Your task to perform on an android device: Open Android settings Image 0: 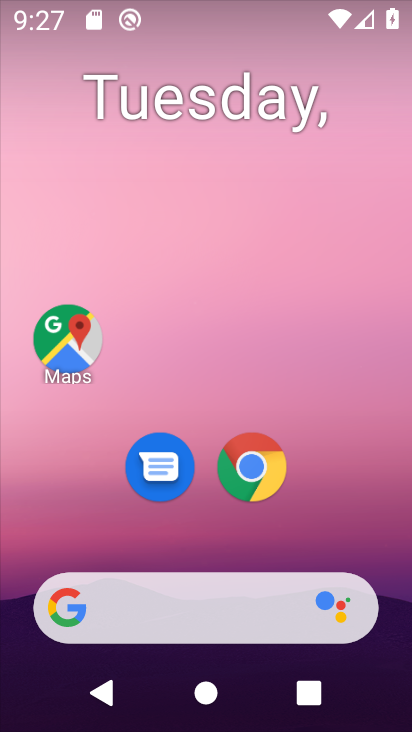
Step 0: drag from (351, 495) to (351, 168)
Your task to perform on an android device: Open Android settings Image 1: 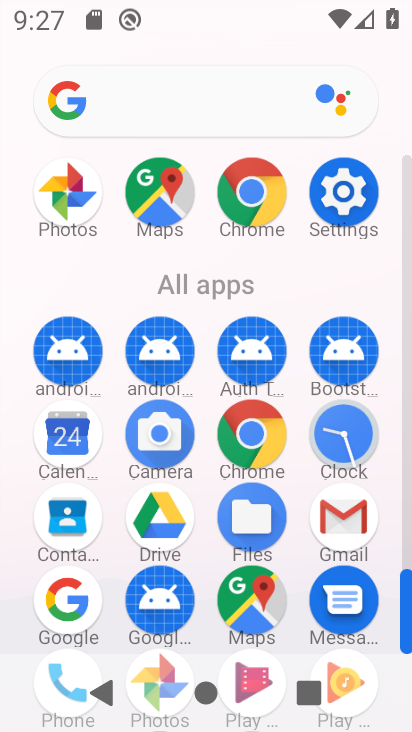
Step 1: click (352, 211)
Your task to perform on an android device: Open Android settings Image 2: 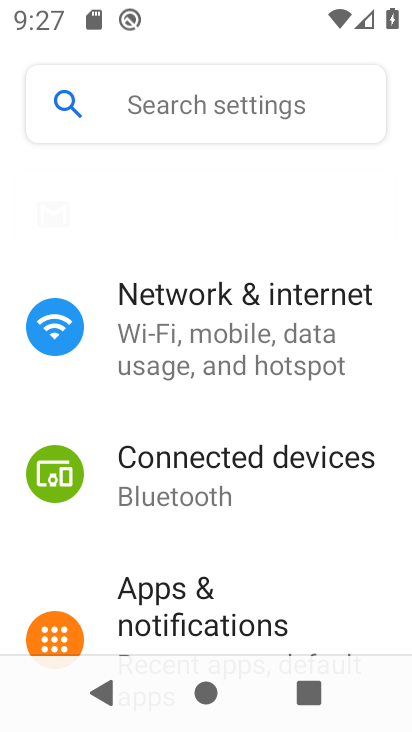
Step 2: task complete